Your task to perform on an android device: Go to eBay Image 0: 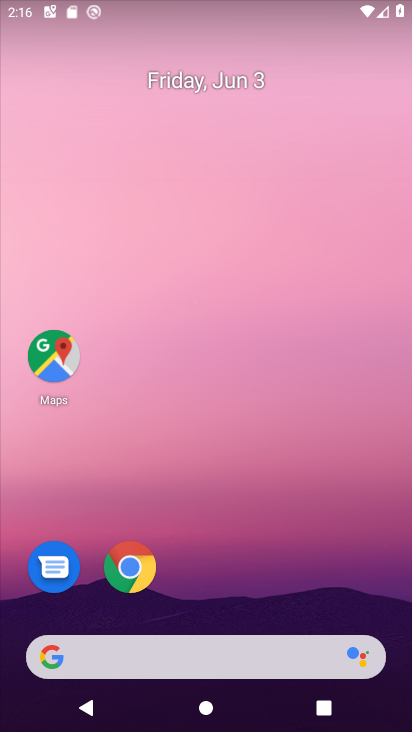
Step 0: click (137, 546)
Your task to perform on an android device: Go to eBay Image 1: 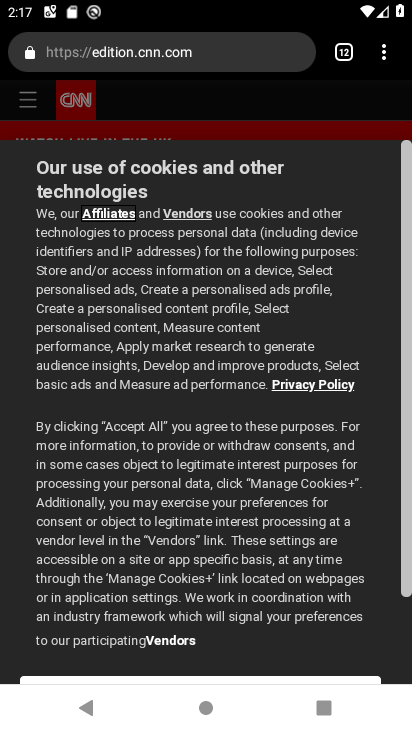
Step 1: click (375, 54)
Your task to perform on an android device: Go to eBay Image 2: 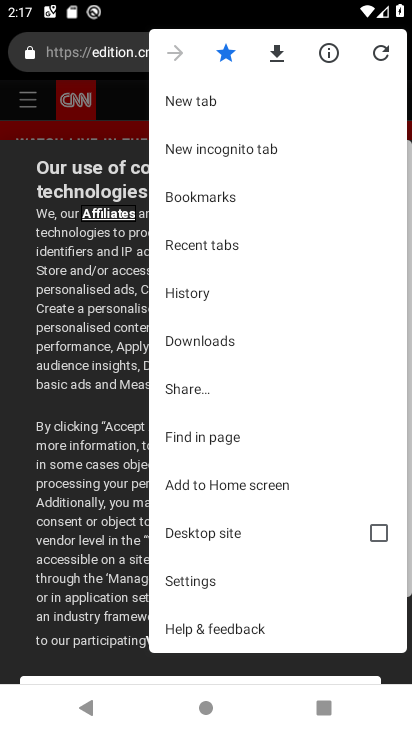
Step 2: click (218, 99)
Your task to perform on an android device: Go to eBay Image 3: 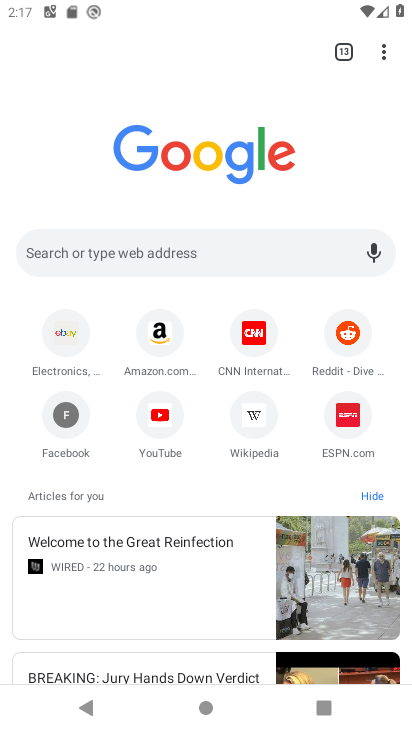
Step 3: click (66, 335)
Your task to perform on an android device: Go to eBay Image 4: 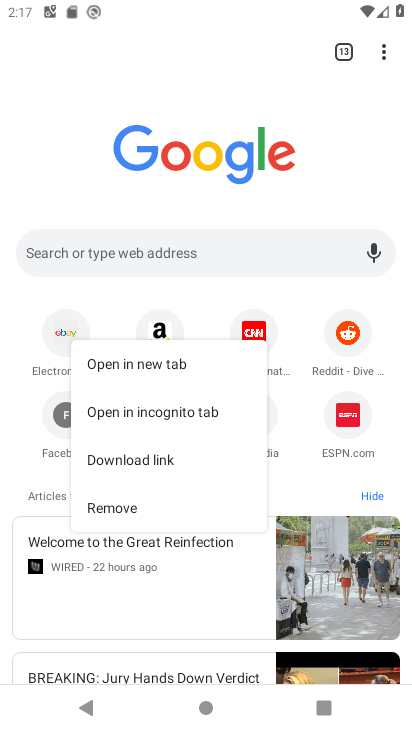
Step 4: click (59, 323)
Your task to perform on an android device: Go to eBay Image 5: 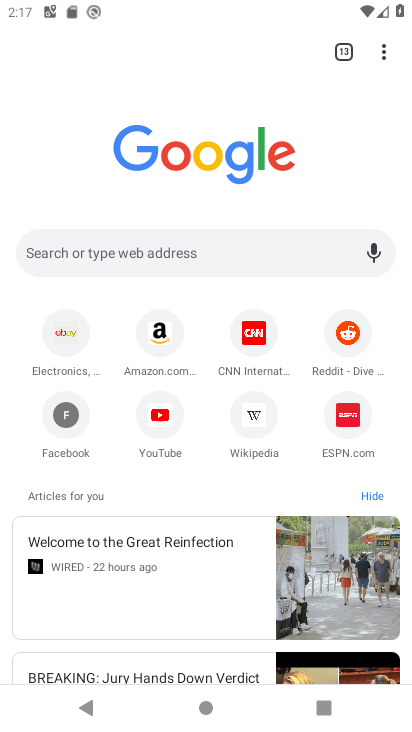
Step 5: click (63, 336)
Your task to perform on an android device: Go to eBay Image 6: 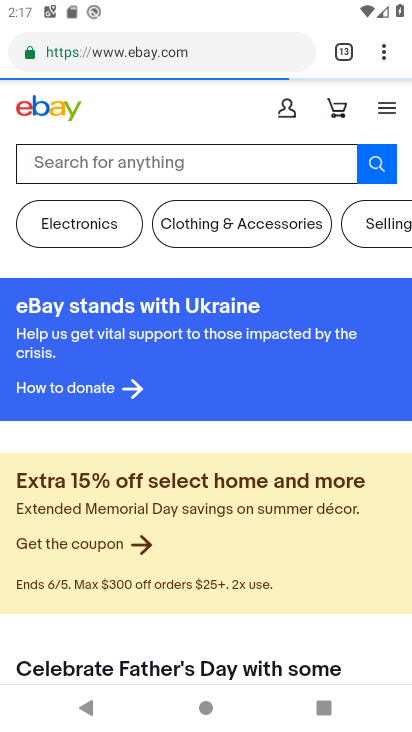
Step 6: click (58, 334)
Your task to perform on an android device: Go to eBay Image 7: 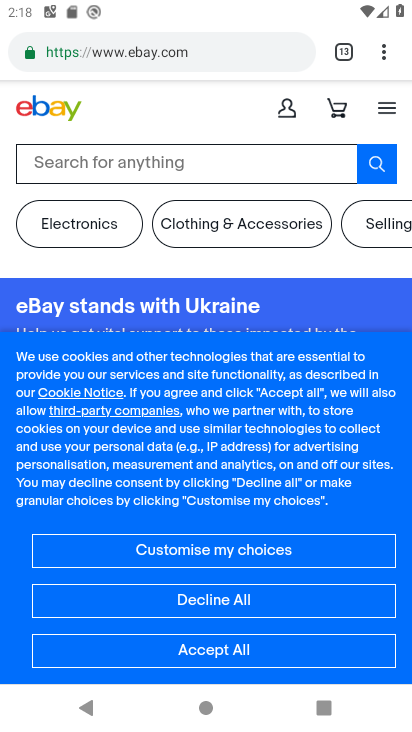
Step 7: task complete